Your task to perform on an android device: Open the calendar and show me this week's events? Image 0: 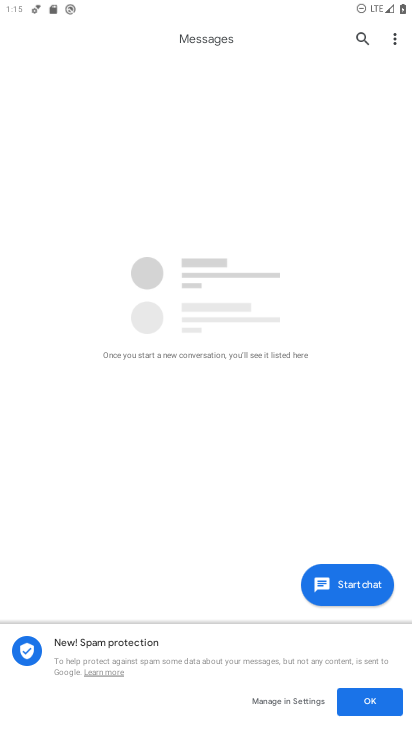
Step 0: press back button
Your task to perform on an android device: Open the calendar and show me this week's events? Image 1: 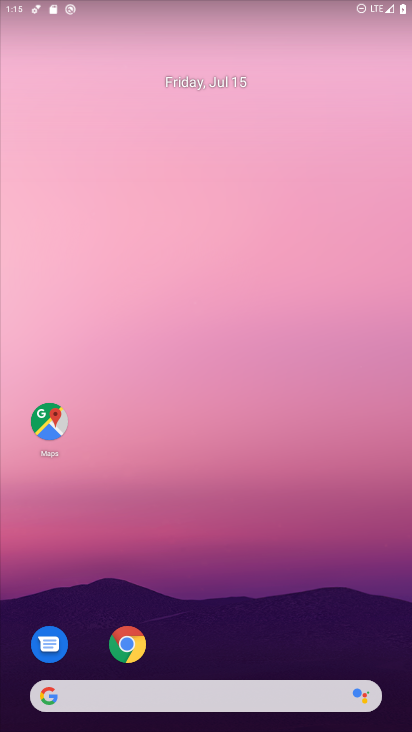
Step 1: drag from (106, 442) to (343, 74)
Your task to perform on an android device: Open the calendar and show me this week's events? Image 2: 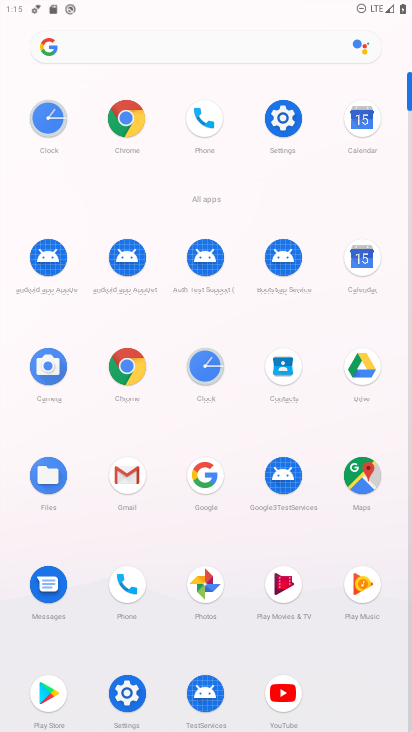
Step 2: click (367, 273)
Your task to perform on an android device: Open the calendar and show me this week's events? Image 3: 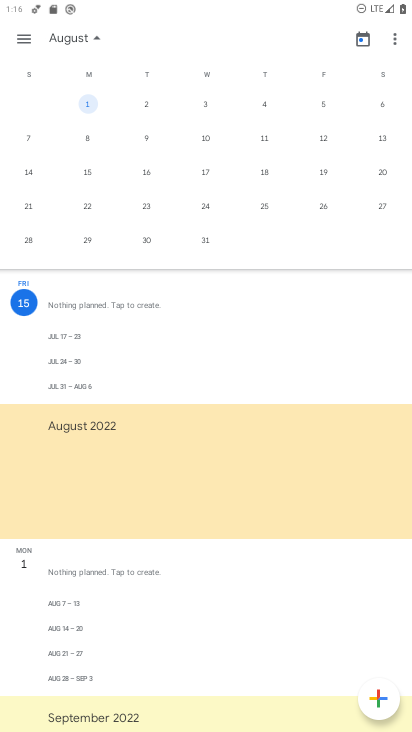
Step 3: task complete